Your task to perform on an android device: Open eBay Image 0: 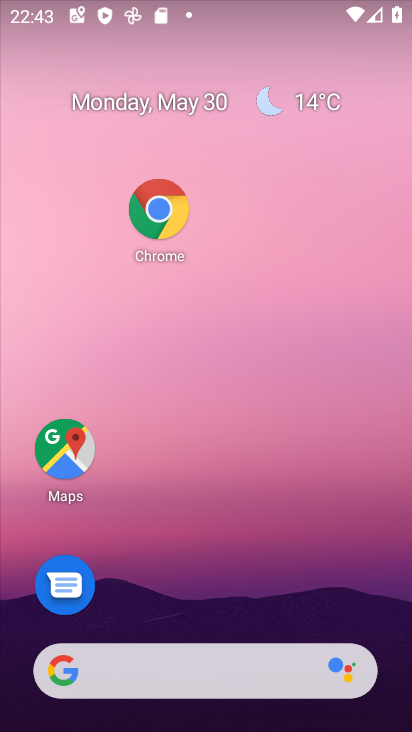
Step 0: drag from (175, 607) to (138, 198)
Your task to perform on an android device: Open eBay Image 1: 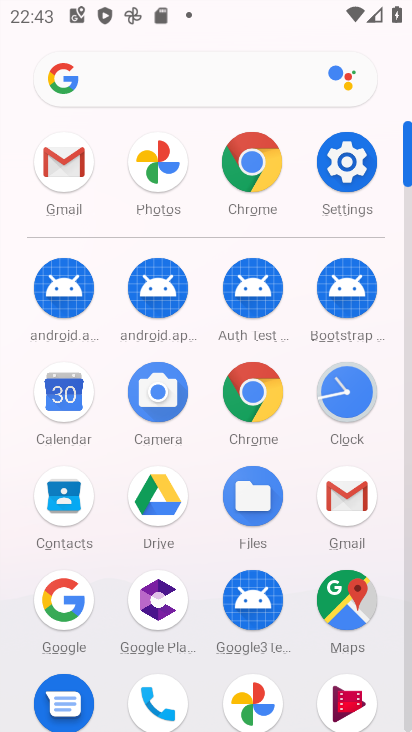
Step 1: click (176, 84)
Your task to perform on an android device: Open eBay Image 2: 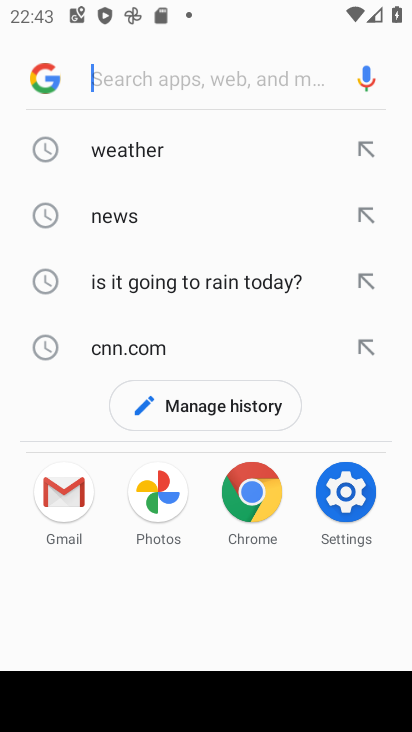
Step 2: type "eBay"
Your task to perform on an android device: Open eBay Image 3: 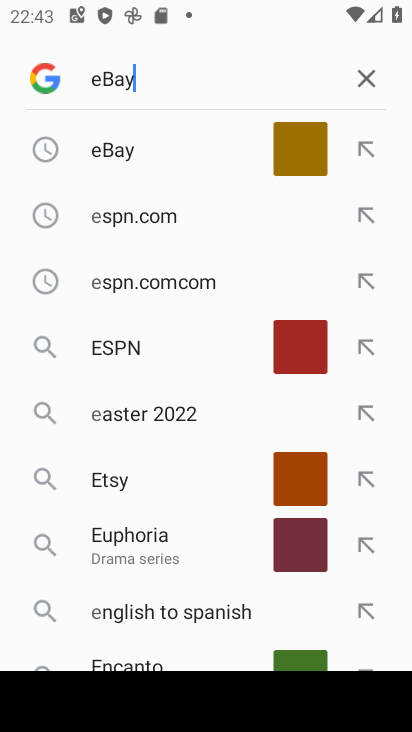
Step 3: type ""
Your task to perform on an android device: Open eBay Image 4: 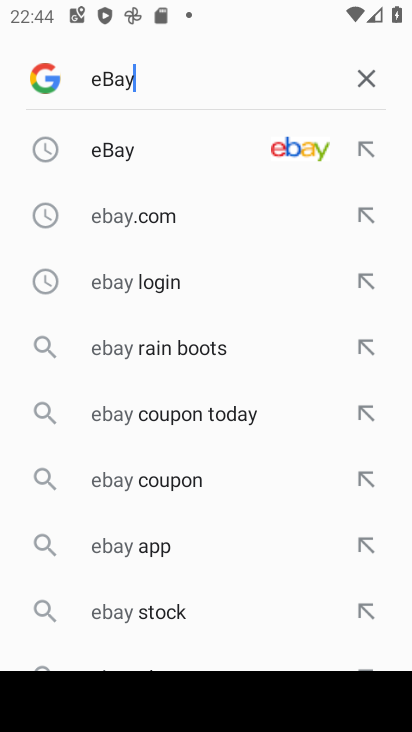
Step 4: click (127, 148)
Your task to perform on an android device: Open eBay Image 5: 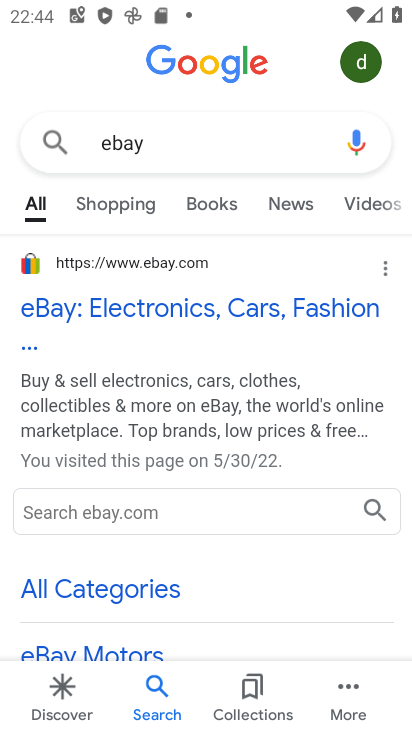
Step 5: click (118, 316)
Your task to perform on an android device: Open eBay Image 6: 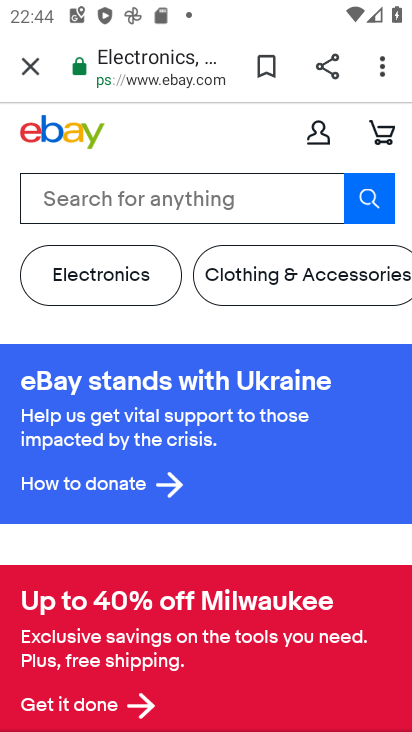
Step 6: task complete